Your task to perform on an android device: turn on location history Image 0: 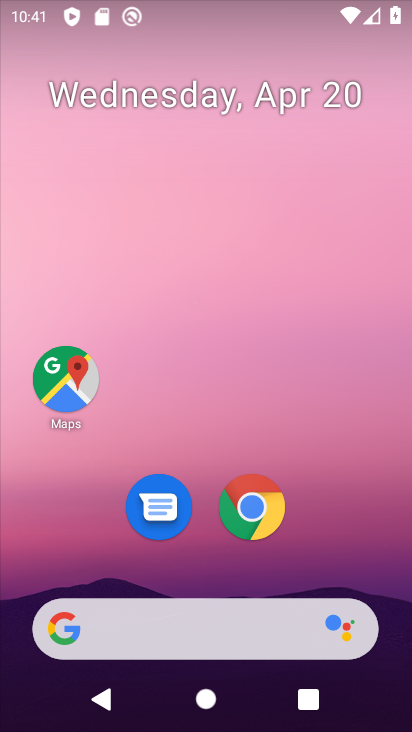
Step 0: click (70, 385)
Your task to perform on an android device: turn on location history Image 1: 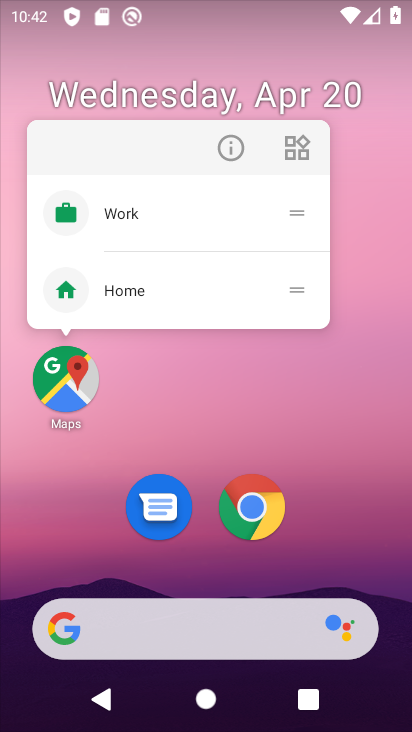
Step 1: click (70, 385)
Your task to perform on an android device: turn on location history Image 2: 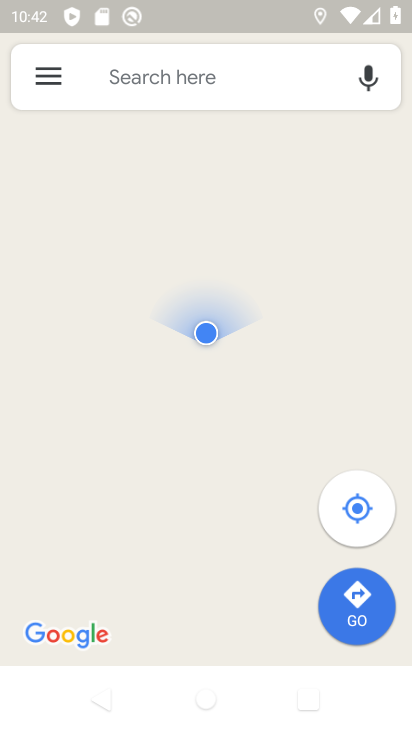
Step 2: click (50, 70)
Your task to perform on an android device: turn on location history Image 3: 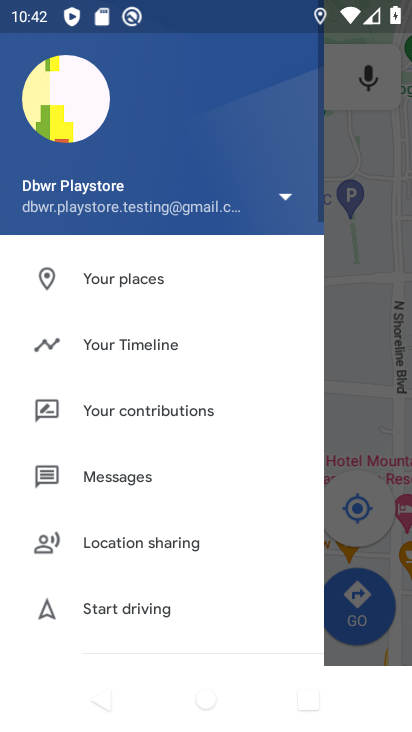
Step 3: click (129, 344)
Your task to perform on an android device: turn on location history Image 4: 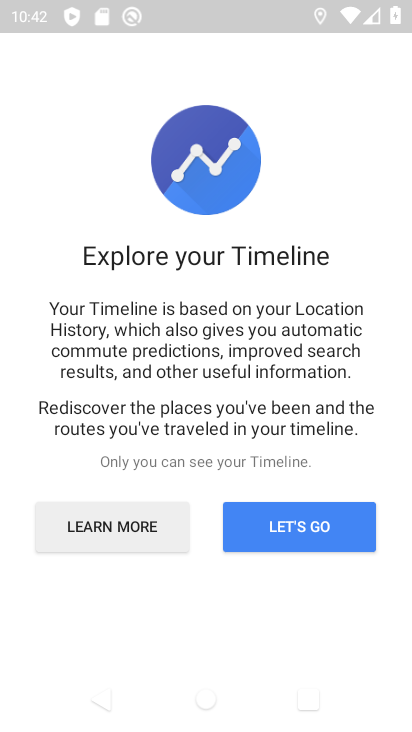
Step 4: click (331, 519)
Your task to perform on an android device: turn on location history Image 5: 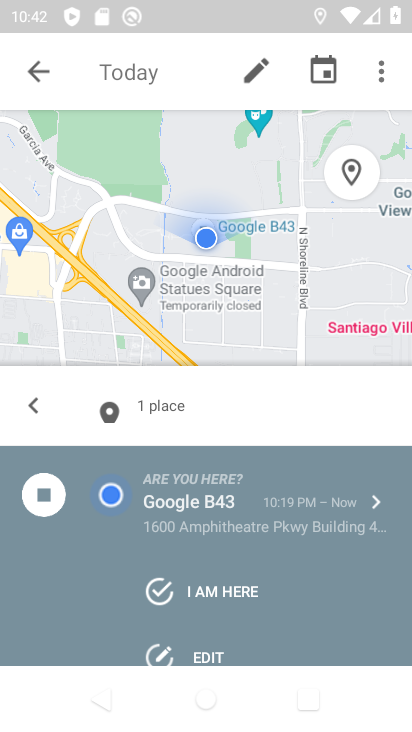
Step 5: click (388, 63)
Your task to perform on an android device: turn on location history Image 6: 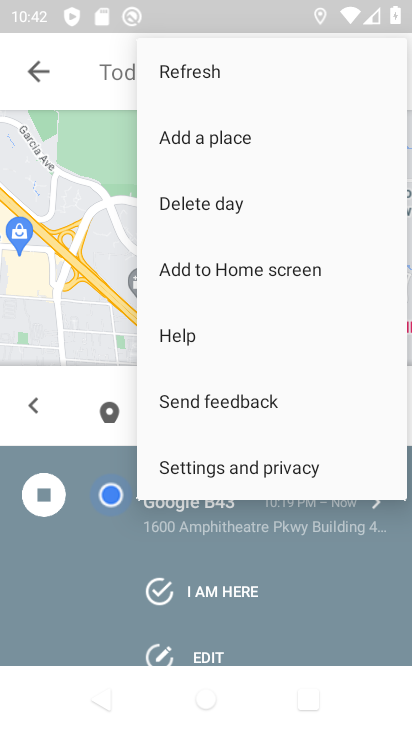
Step 6: click (303, 475)
Your task to perform on an android device: turn on location history Image 7: 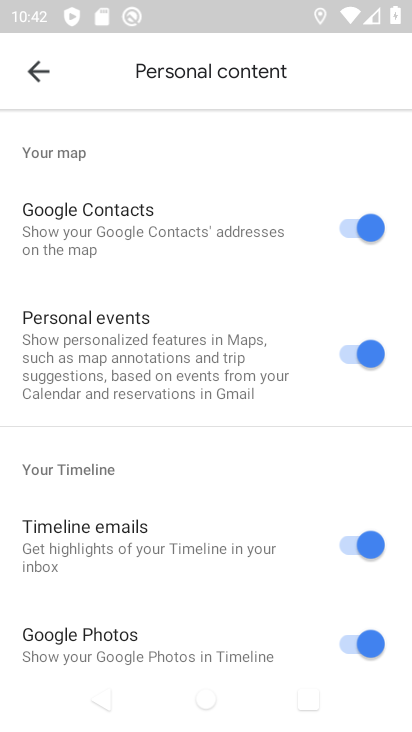
Step 7: drag from (209, 595) to (213, 187)
Your task to perform on an android device: turn on location history Image 8: 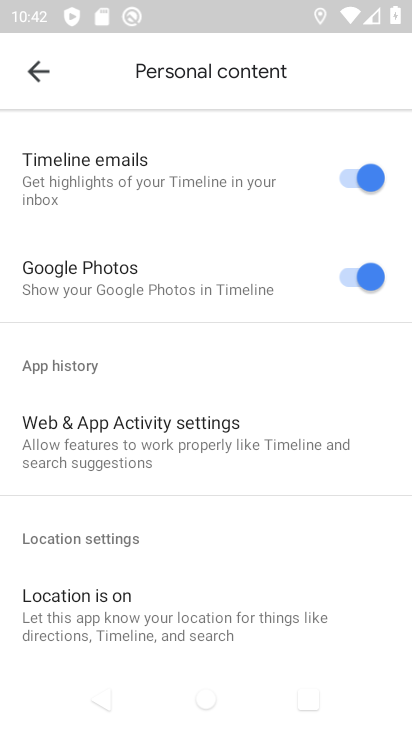
Step 8: drag from (204, 600) to (238, 209)
Your task to perform on an android device: turn on location history Image 9: 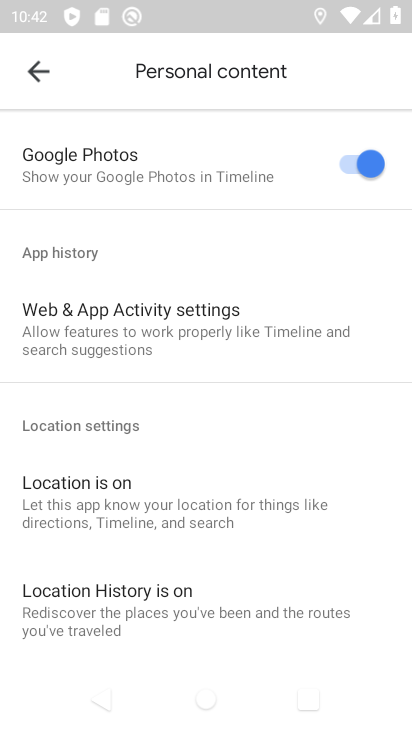
Step 9: click (198, 618)
Your task to perform on an android device: turn on location history Image 10: 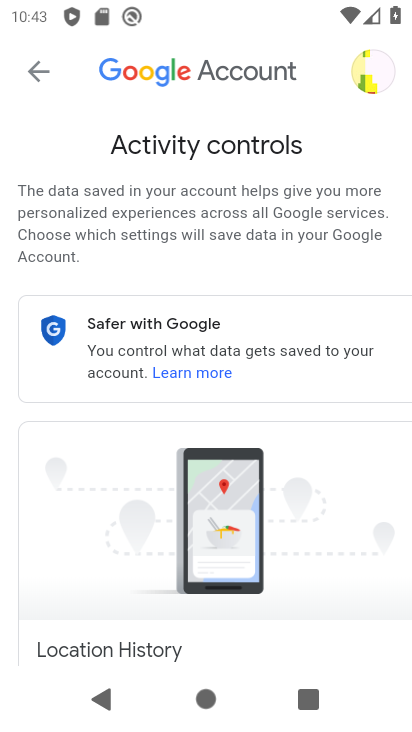
Step 10: task complete